Your task to perform on an android device: Go to sound settings Image 0: 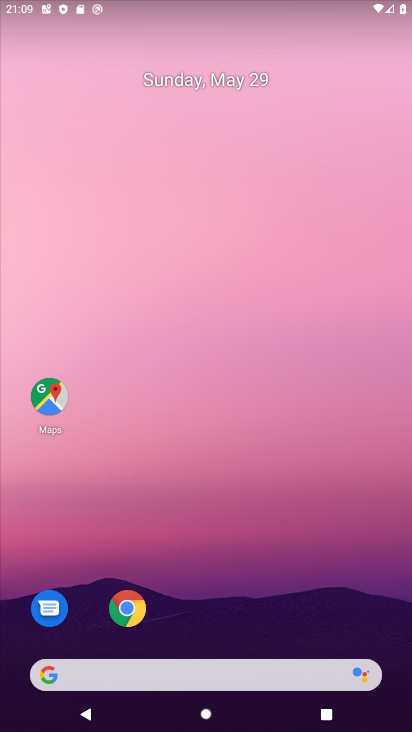
Step 0: drag from (381, 625) to (390, 272)
Your task to perform on an android device: Go to sound settings Image 1: 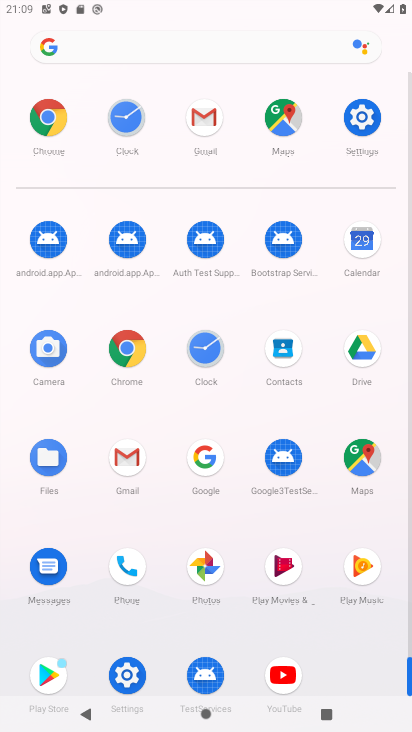
Step 1: click (360, 127)
Your task to perform on an android device: Go to sound settings Image 2: 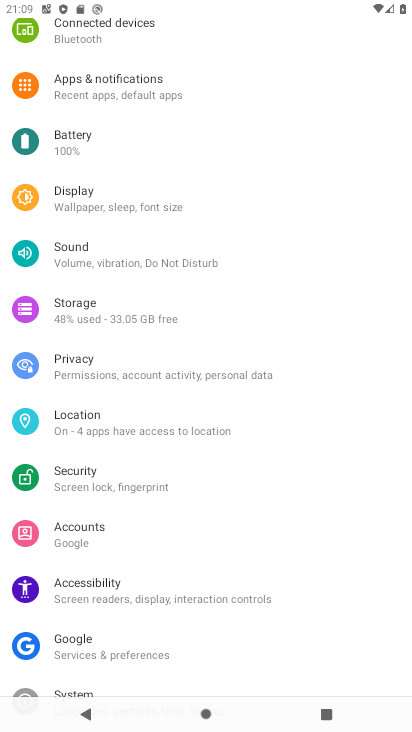
Step 2: drag from (362, 154) to (364, 210)
Your task to perform on an android device: Go to sound settings Image 3: 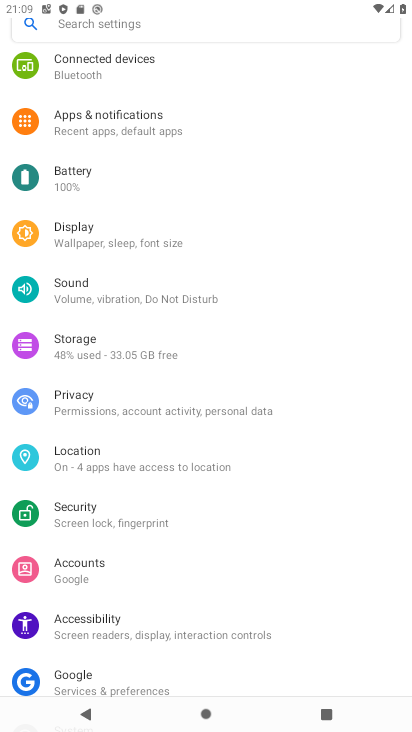
Step 3: drag from (350, 111) to (338, 266)
Your task to perform on an android device: Go to sound settings Image 4: 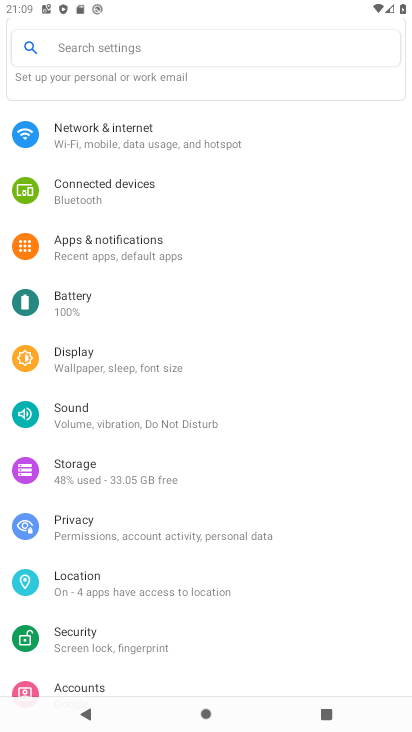
Step 4: drag from (342, 135) to (343, 260)
Your task to perform on an android device: Go to sound settings Image 5: 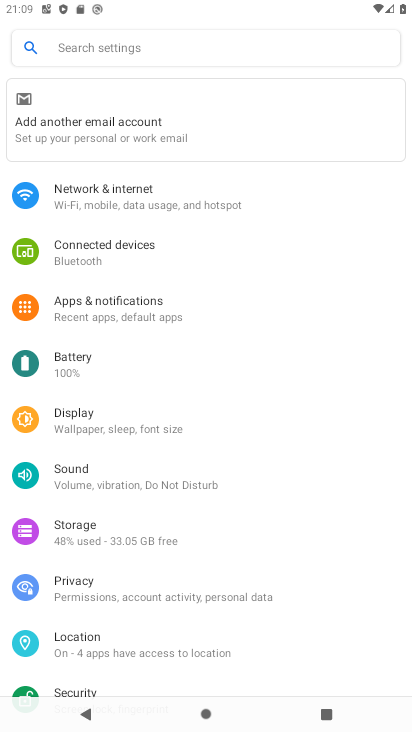
Step 5: drag from (324, 305) to (334, 224)
Your task to perform on an android device: Go to sound settings Image 6: 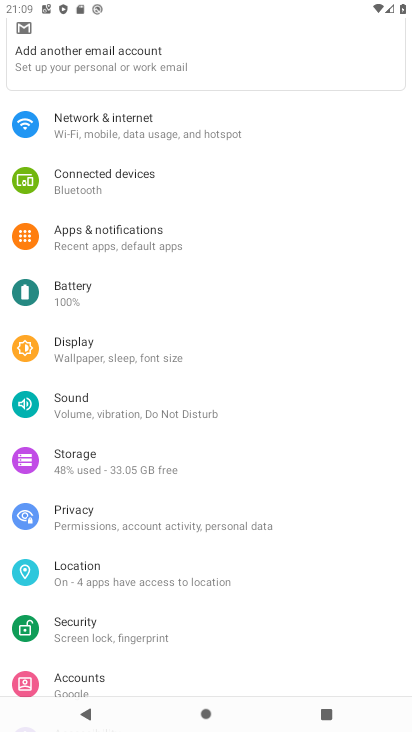
Step 6: drag from (316, 343) to (329, 238)
Your task to perform on an android device: Go to sound settings Image 7: 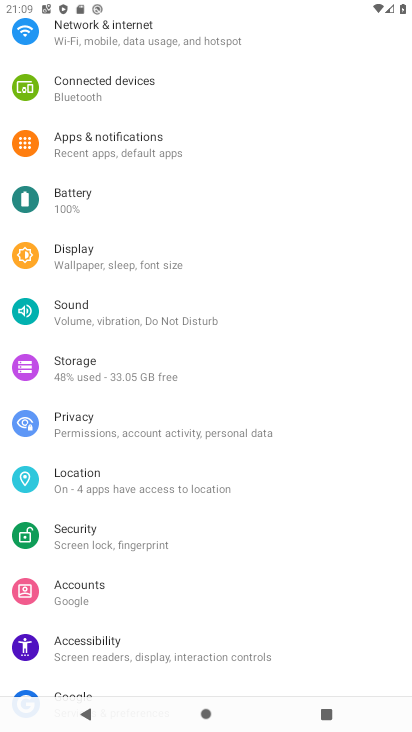
Step 7: click (200, 333)
Your task to perform on an android device: Go to sound settings Image 8: 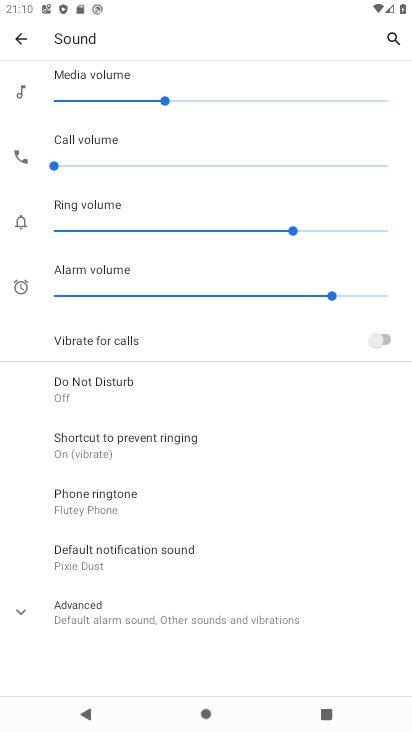
Step 8: task complete